Your task to perform on an android device: What is the recent news? Image 0: 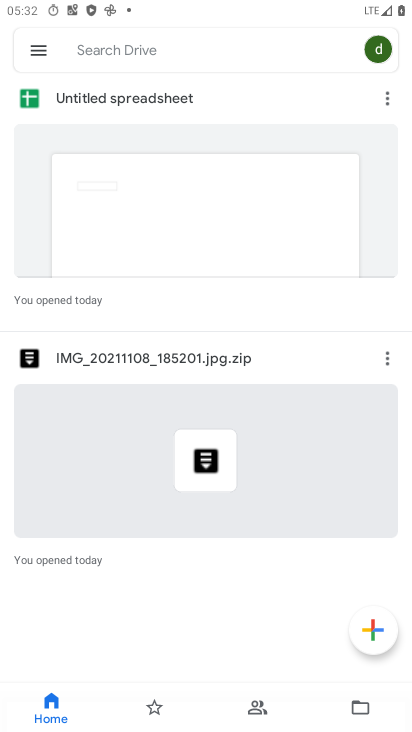
Step 0: press home button
Your task to perform on an android device: What is the recent news? Image 1: 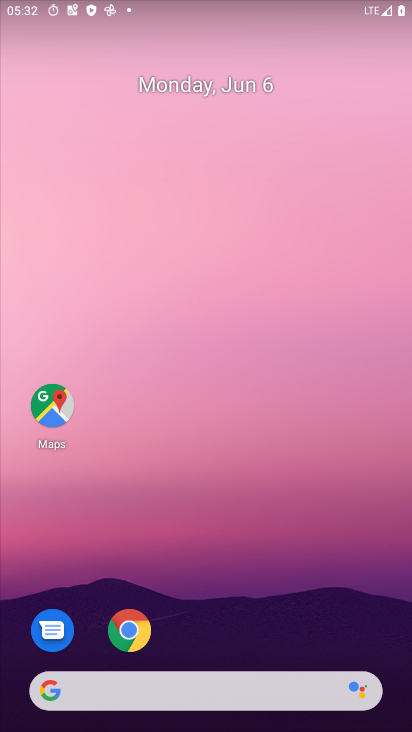
Step 1: drag from (255, 601) to (182, 84)
Your task to perform on an android device: What is the recent news? Image 2: 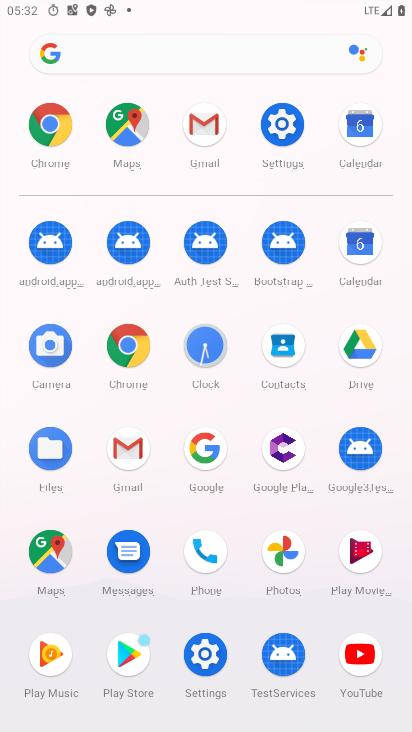
Step 2: click (134, 346)
Your task to perform on an android device: What is the recent news? Image 3: 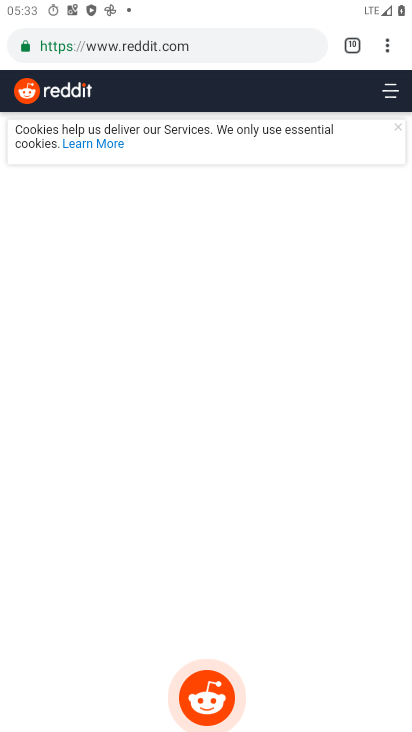
Step 3: click (203, 40)
Your task to perform on an android device: What is the recent news? Image 4: 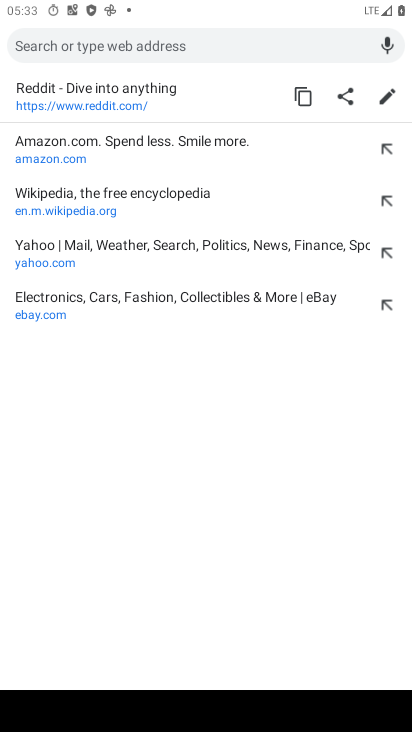
Step 4: type "What is the recent news?"
Your task to perform on an android device: What is the recent news? Image 5: 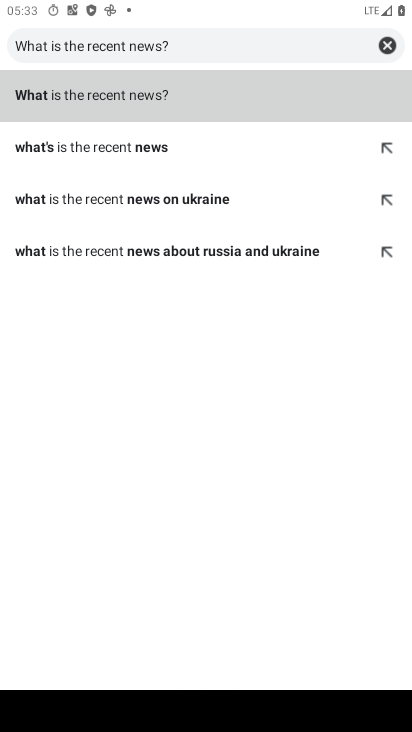
Step 5: click (88, 94)
Your task to perform on an android device: What is the recent news? Image 6: 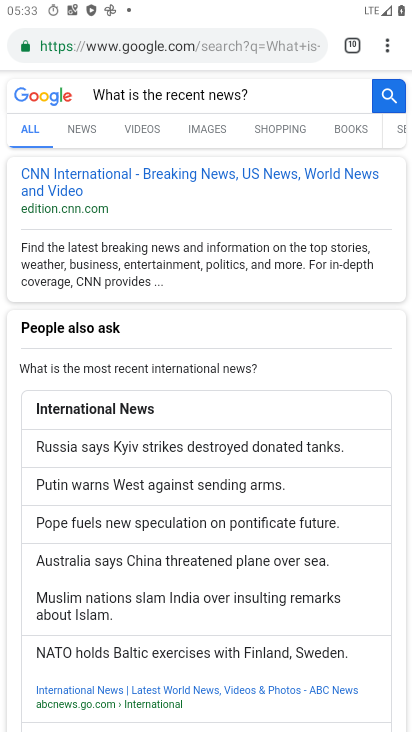
Step 6: click (85, 134)
Your task to perform on an android device: What is the recent news? Image 7: 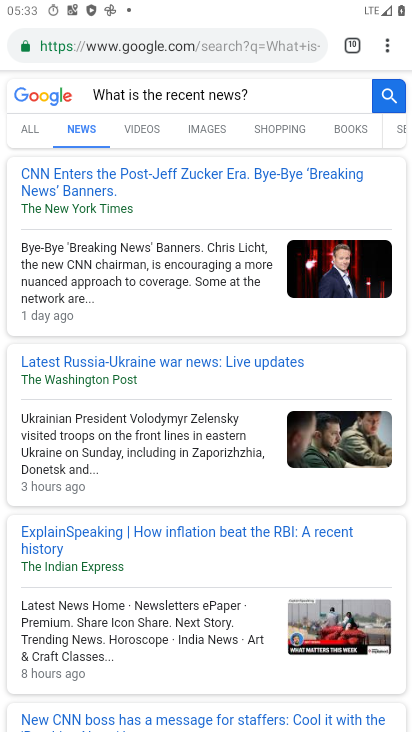
Step 7: task complete